Your task to perform on an android device: Clear the cart on bestbuy. Search for bose soundsport free on bestbuy, select the first entry, and add it to the cart. Image 0: 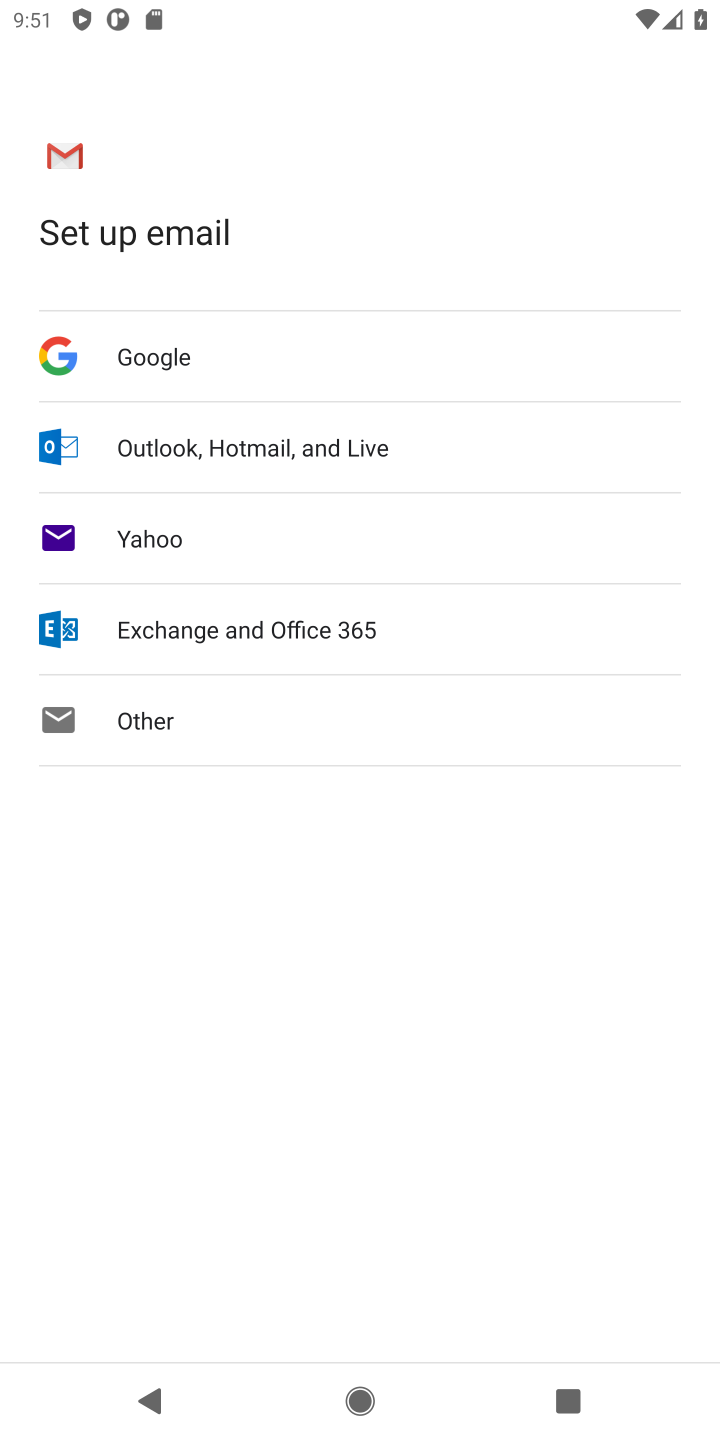
Step 0: press home button
Your task to perform on an android device: Clear the cart on bestbuy. Search for bose soundsport free on bestbuy, select the first entry, and add it to the cart. Image 1: 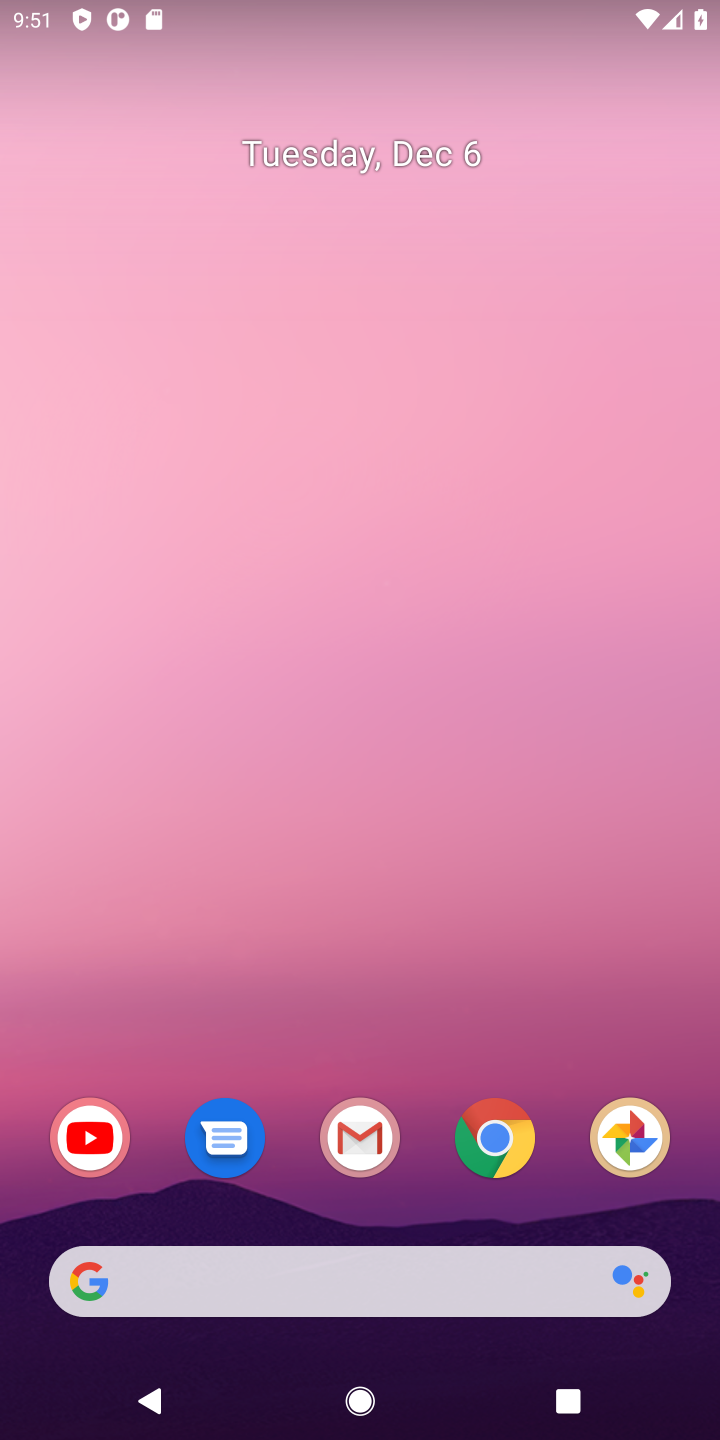
Step 1: click (496, 1146)
Your task to perform on an android device: Clear the cart on bestbuy. Search for bose soundsport free on bestbuy, select the first entry, and add it to the cart. Image 2: 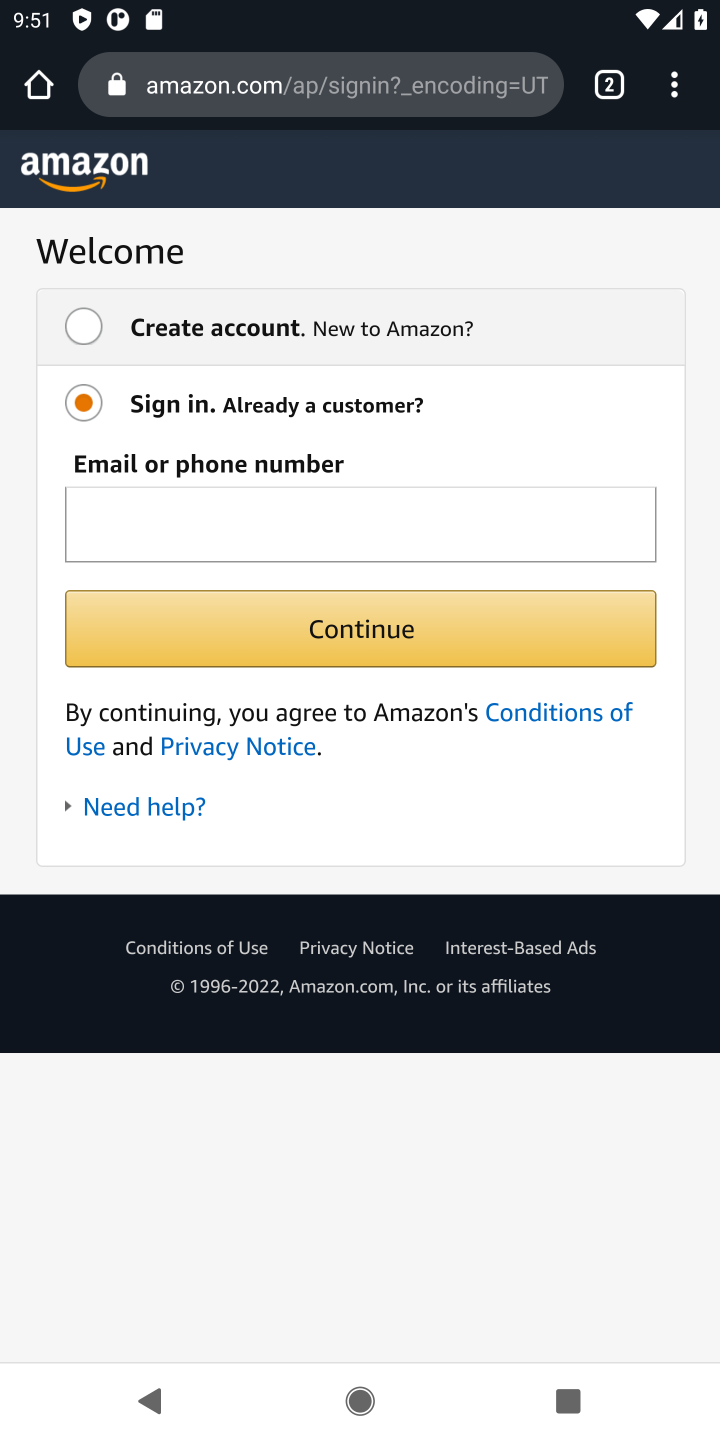
Step 2: click (346, 95)
Your task to perform on an android device: Clear the cart on bestbuy. Search for bose soundsport free on bestbuy, select the first entry, and add it to the cart. Image 3: 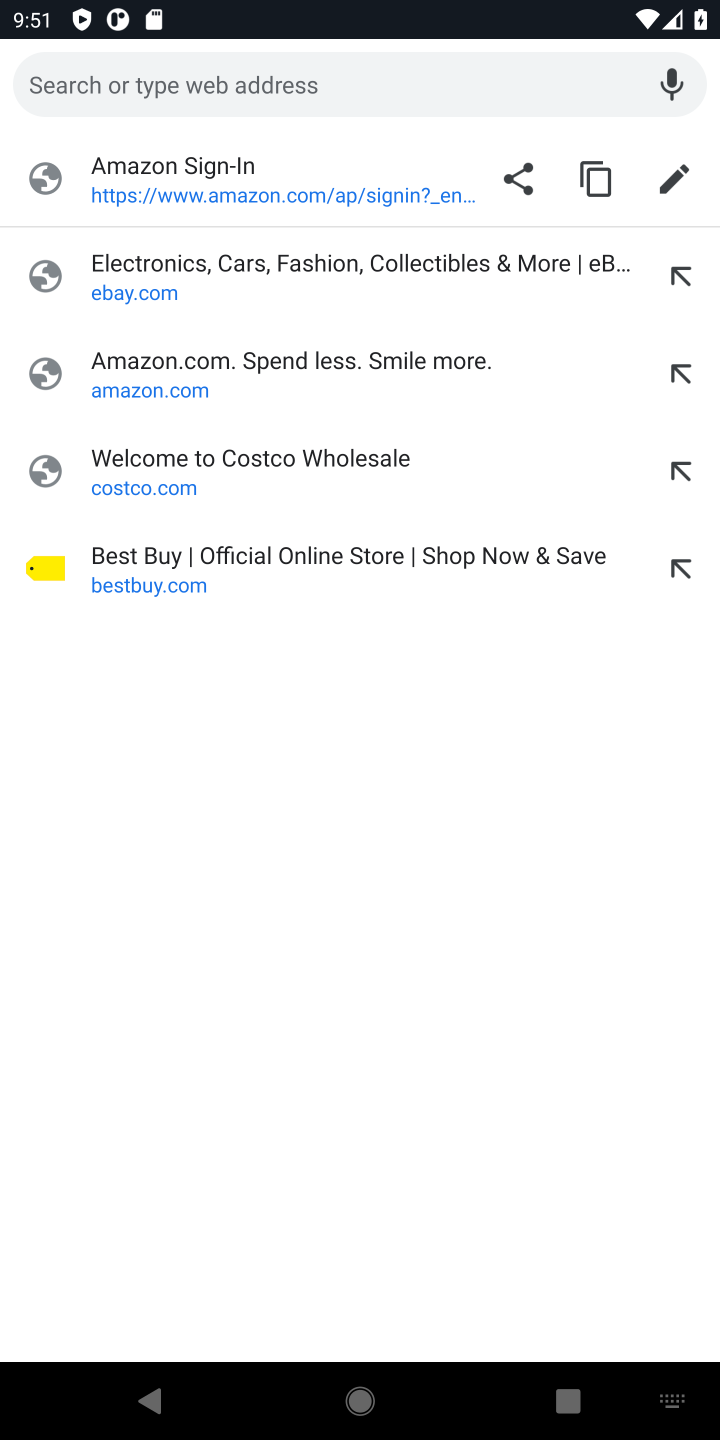
Step 3: click (112, 573)
Your task to perform on an android device: Clear the cart on bestbuy. Search for bose soundsport free on bestbuy, select the first entry, and add it to the cart. Image 4: 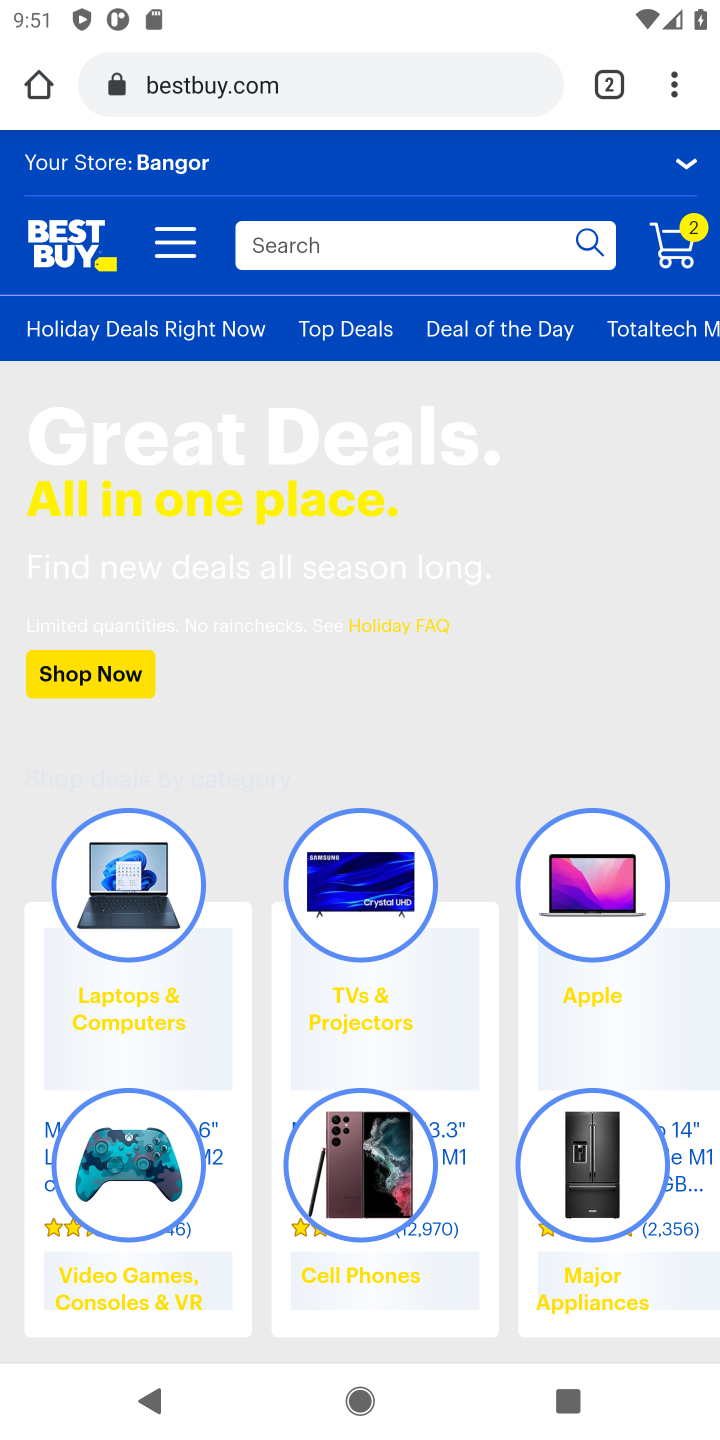
Step 4: click (677, 250)
Your task to perform on an android device: Clear the cart on bestbuy. Search for bose soundsport free on bestbuy, select the first entry, and add it to the cart. Image 5: 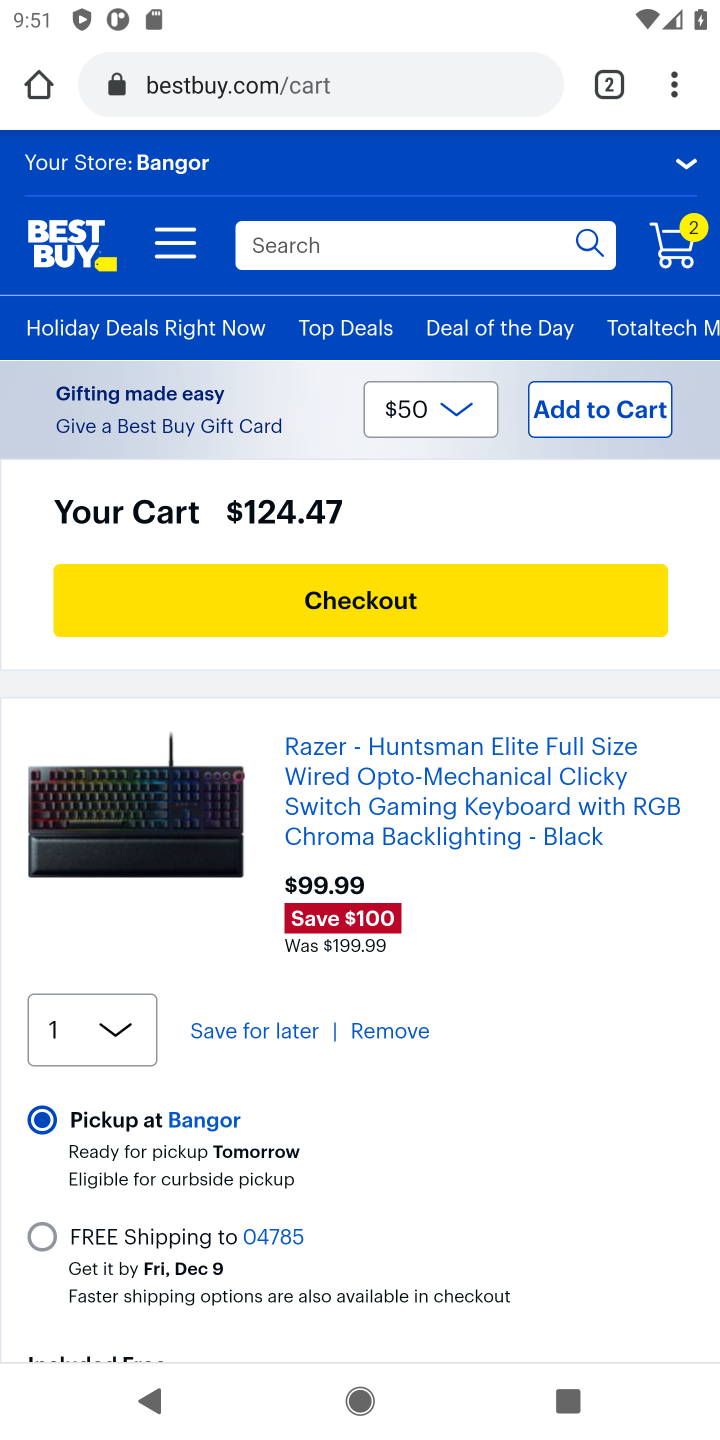
Step 5: click (365, 1037)
Your task to perform on an android device: Clear the cart on bestbuy. Search for bose soundsport free on bestbuy, select the first entry, and add it to the cart. Image 6: 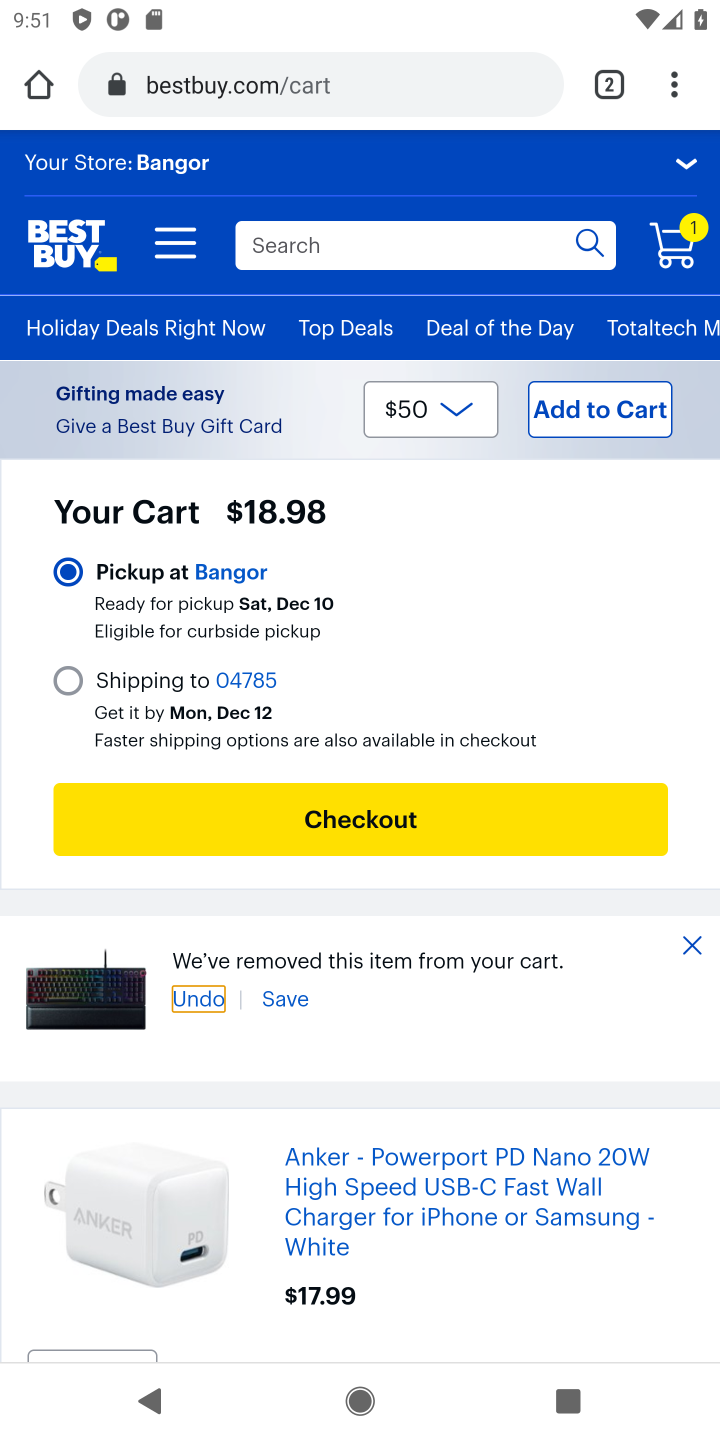
Step 6: drag from (357, 1006) to (309, 431)
Your task to perform on an android device: Clear the cart on bestbuy. Search for bose soundsport free on bestbuy, select the first entry, and add it to the cart. Image 7: 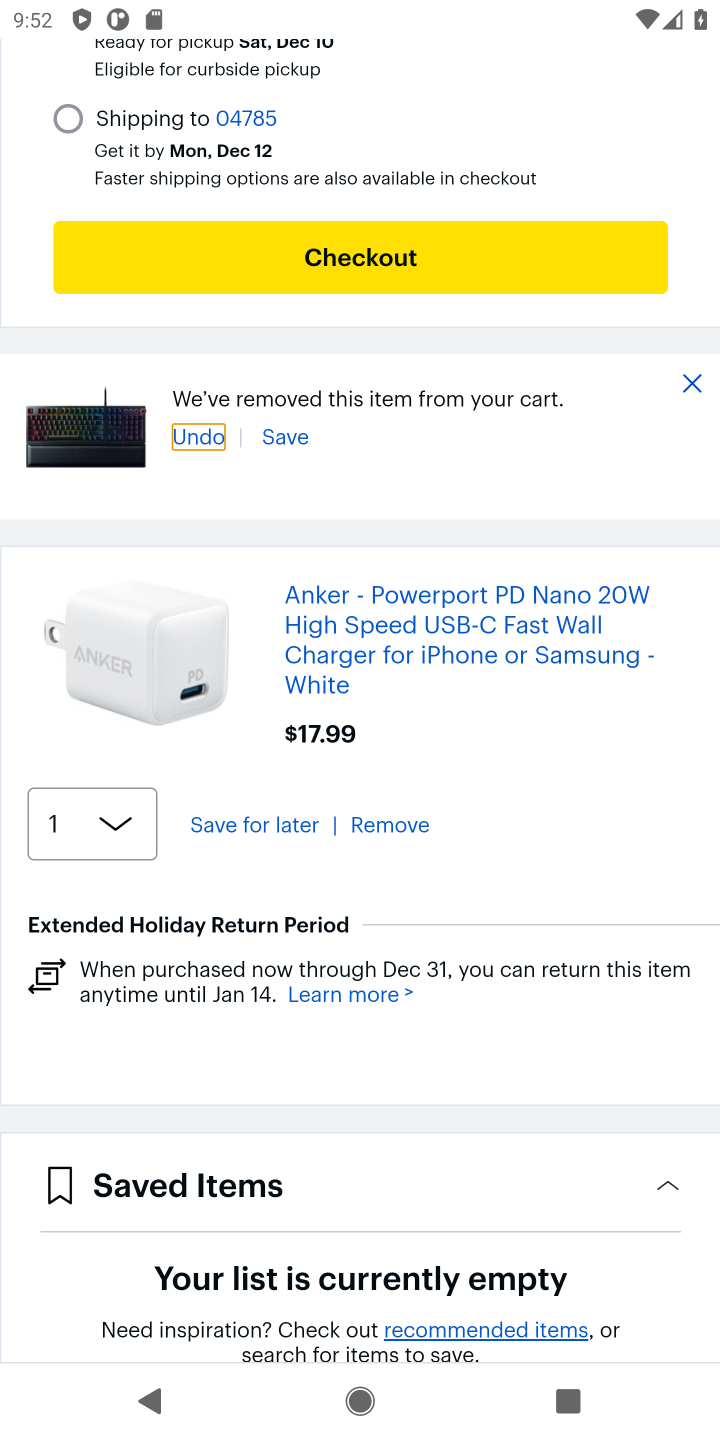
Step 7: click (377, 831)
Your task to perform on an android device: Clear the cart on bestbuy. Search for bose soundsport free on bestbuy, select the first entry, and add it to the cart. Image 8: 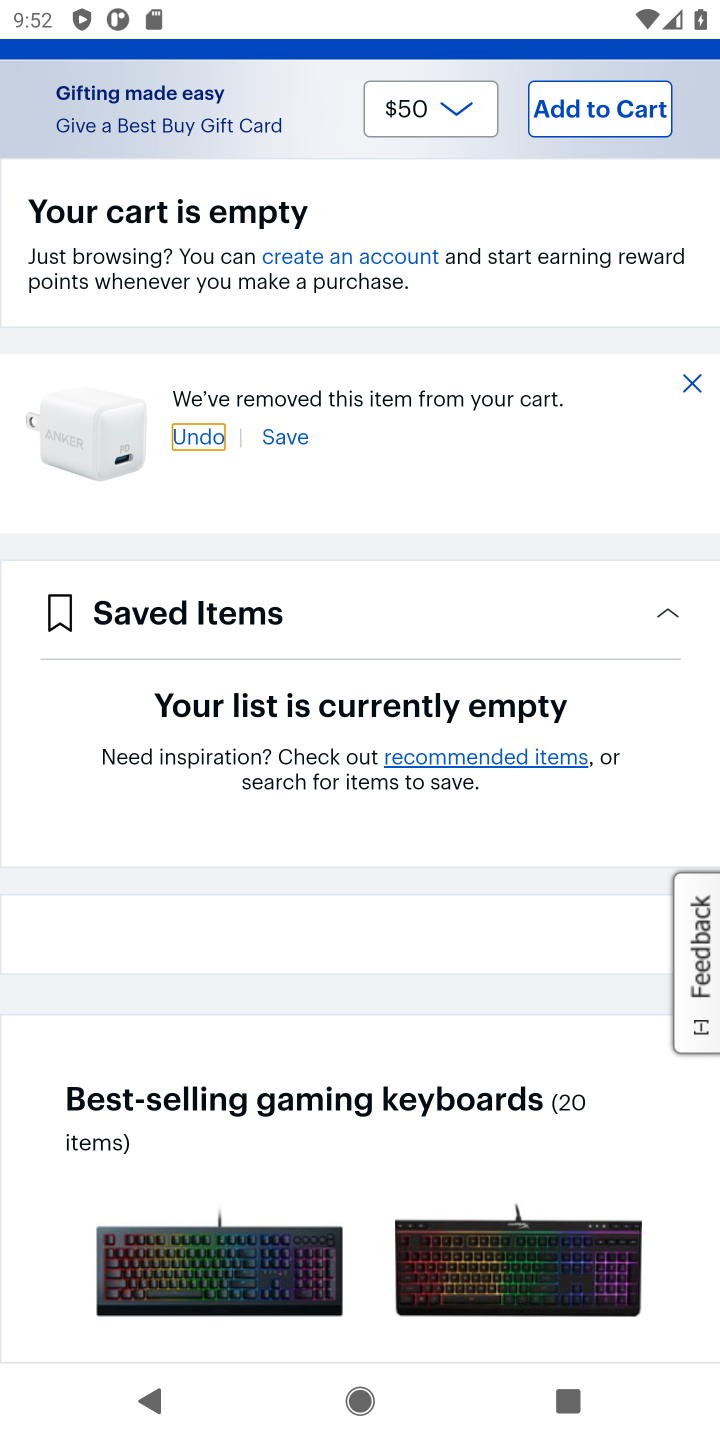
Step 8: drag from (534, 359) to (516, 812)
Your task to perform on an android device: Clear the cart on bestbuy. Search for bose soundsport free on bestbuy, select the first entry, and add it to the cart. Image 9: 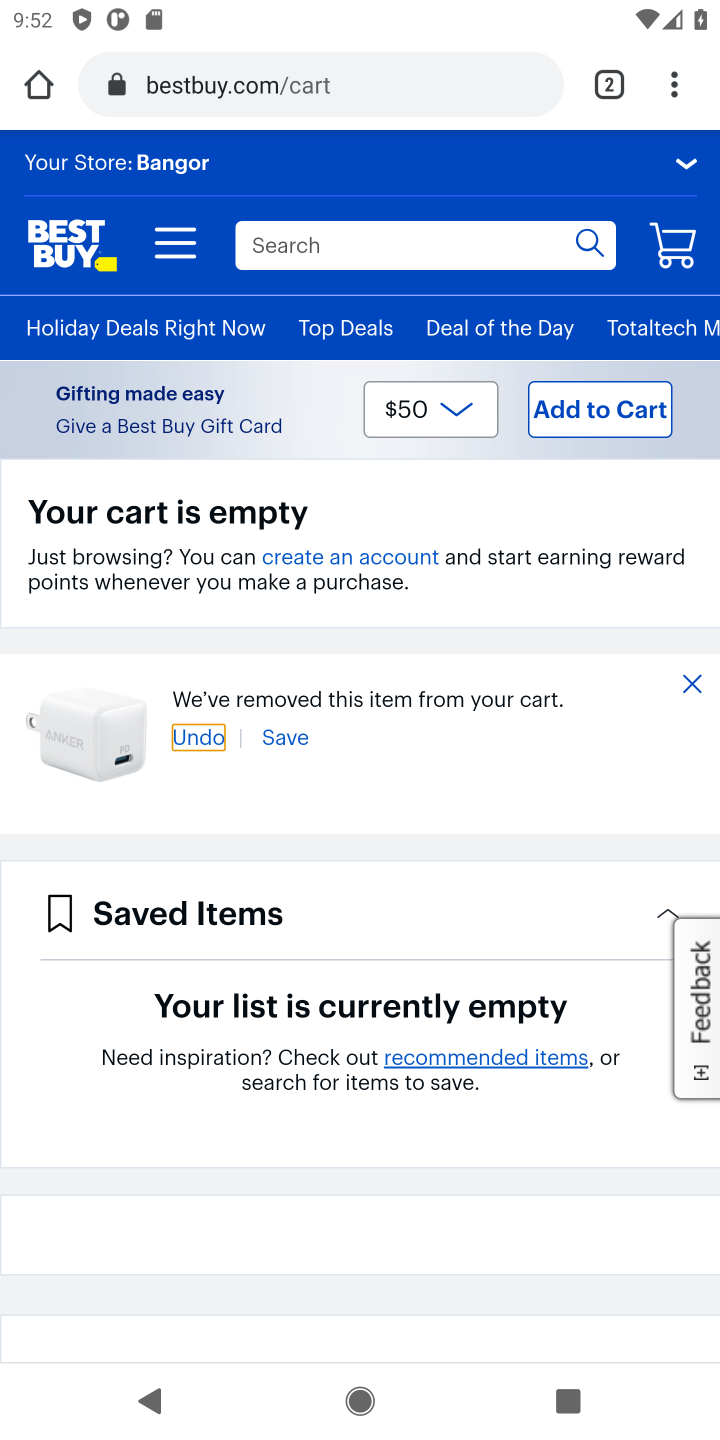
Step 9: click (286, 243)
Your task to perform on an android device: Clear the cart on bestbuy. Search for bose soundsport free on bestbuy, select the first entry, and add it to the cart. Image 10: 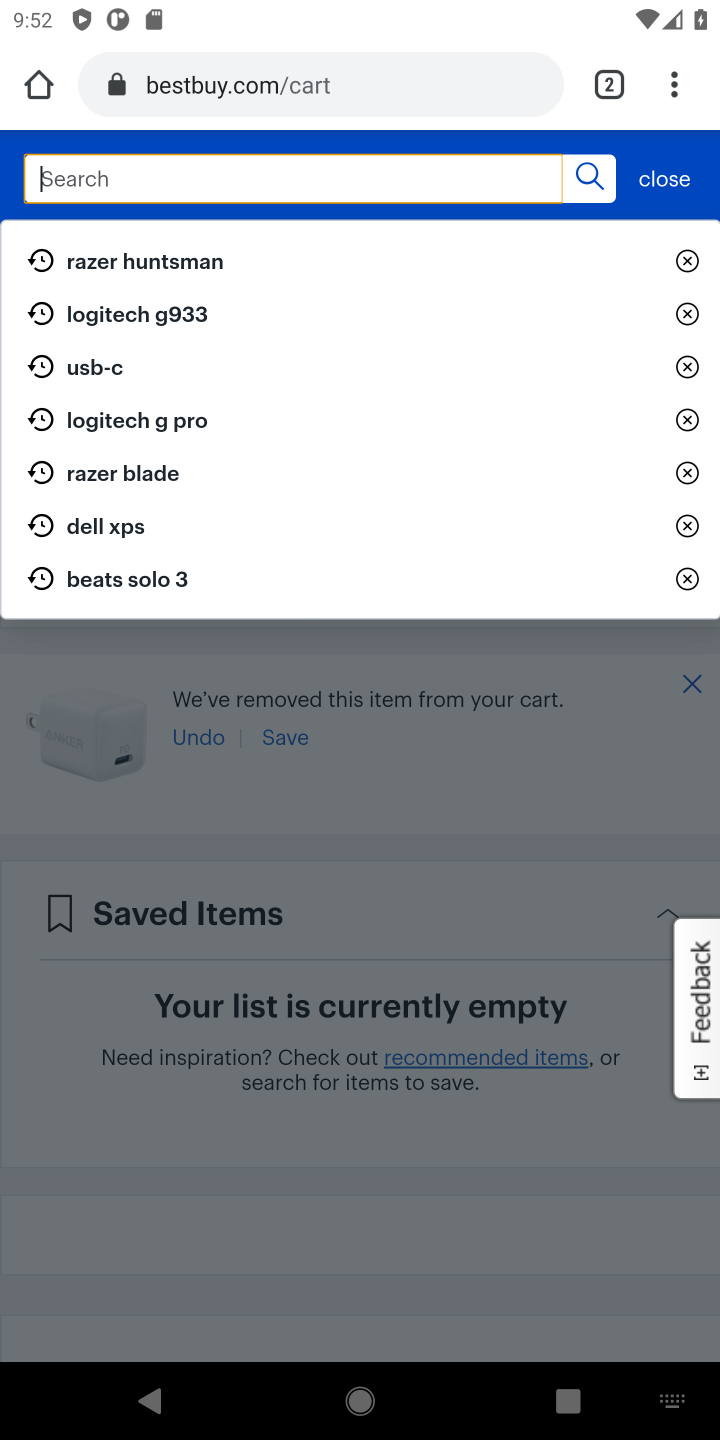
Step 10: type " bose soundsport free "
Your task to perform on an android device: Clear the cart on bestbuy. Search for bose soundsport free on bestbuy, select the first entry, and add it to the cart. Image 11: 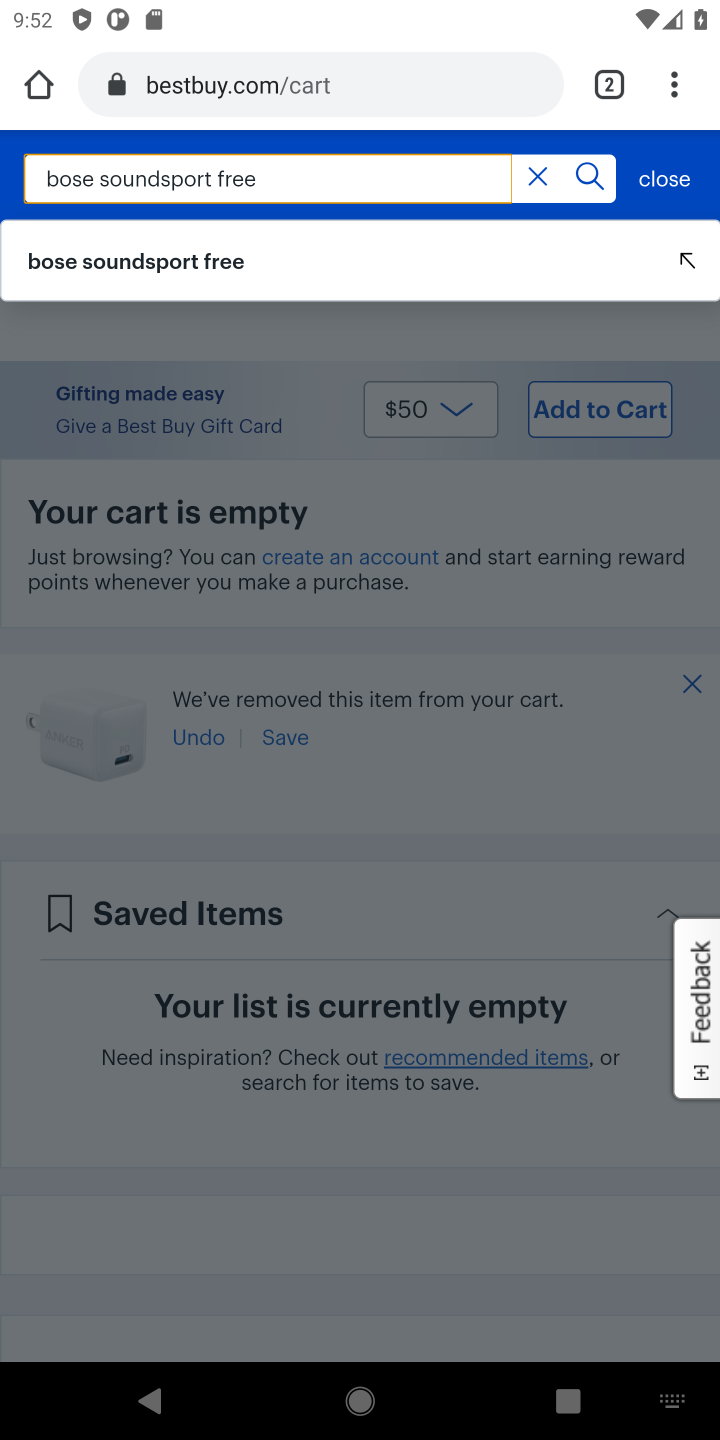
Step 11: click (218, 279)
Your task to perform on an android device: Clear the cart on bestbuy. Search for bose soundsport free on bestbuy, select the first entry, and add it to the cart. Image 12: 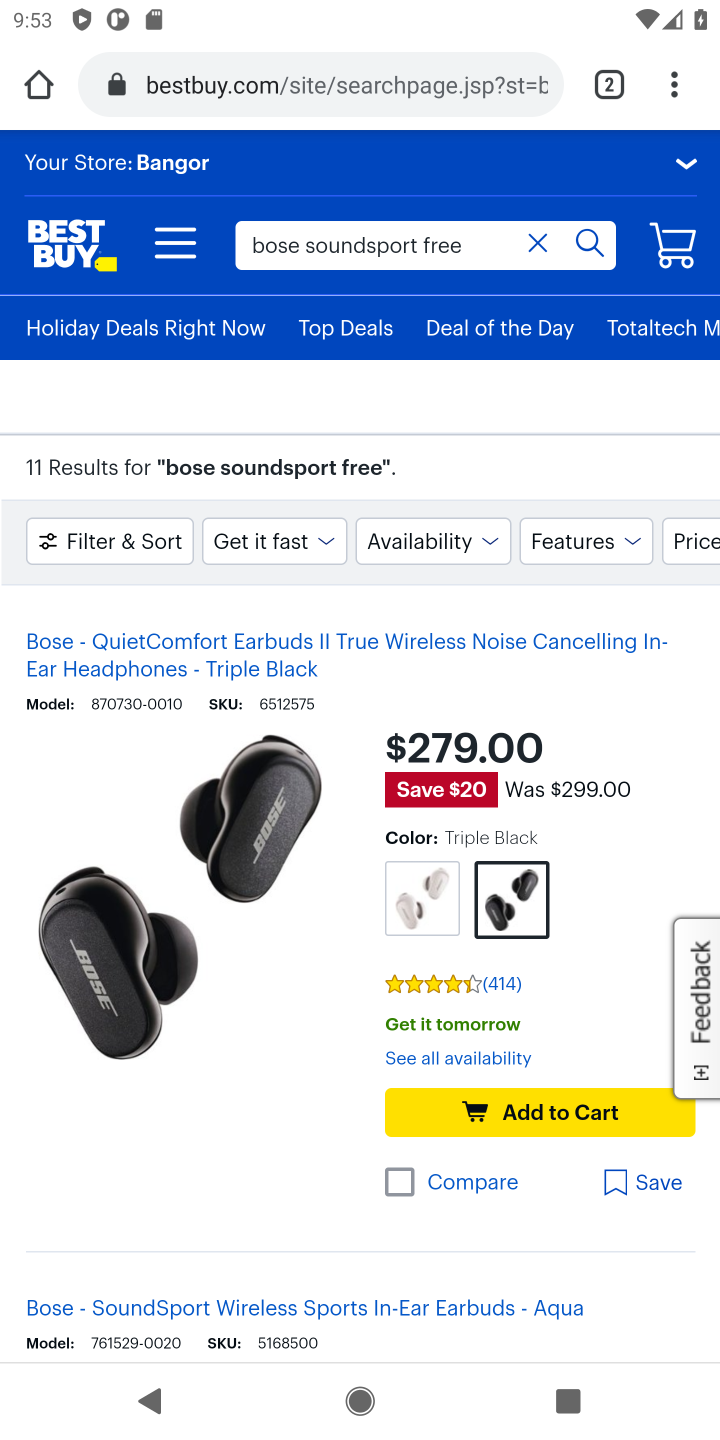
Step 12: task complete